Your task to perform on an android device: turn off sleep mode Image 0: 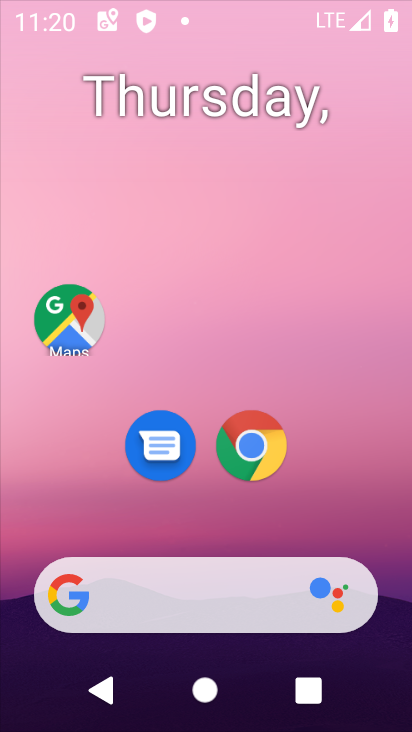
Step 0: drag from (150, 427) to (298, 94)
Your task to perform on an android device: turn off sleep mode Image 1: 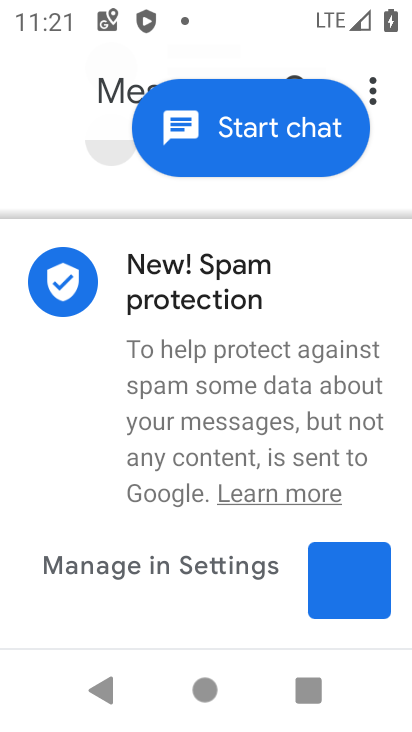
Step 1: press home button
Your task to perform on an android device: turn off sleep mode Image 2: 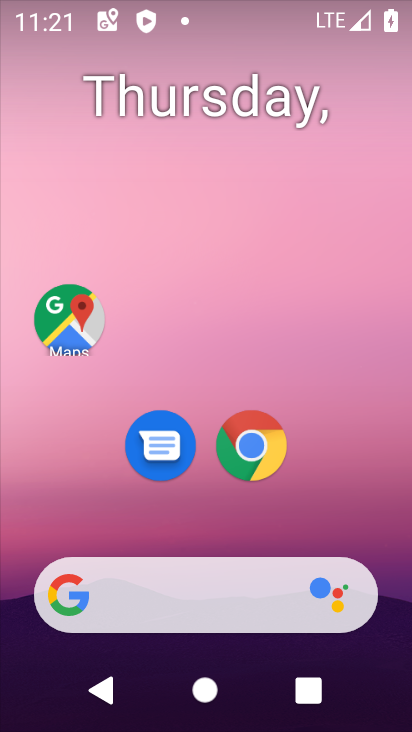
Step 2: drag from (164, 559) to (293, 133)
Your task to perform on an android device: turn off sleep mode Image 3: 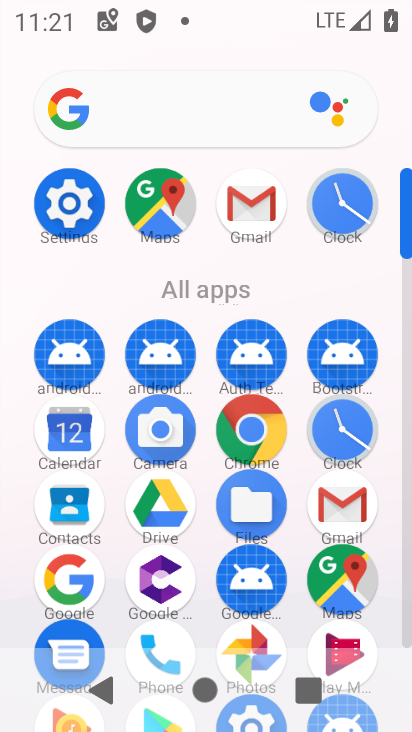
Step 3: drag from (205, 601) to (297, 347)
Your task to perform on an android device: turn off sleep mode Image 4: 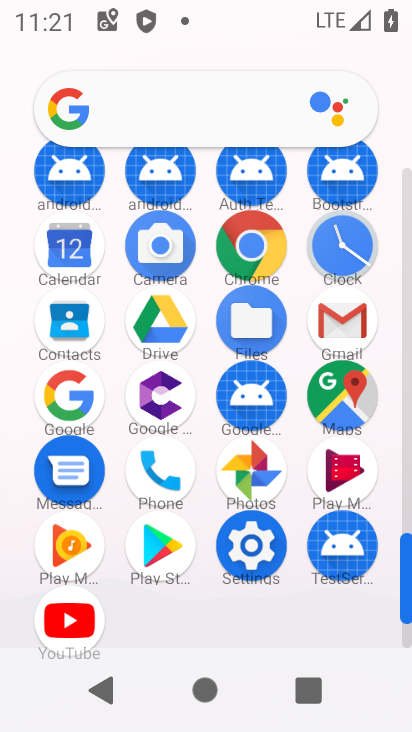
Step 4: click (267, 540)
Your task to perform on an android device: turn off sleep mode Image 5: 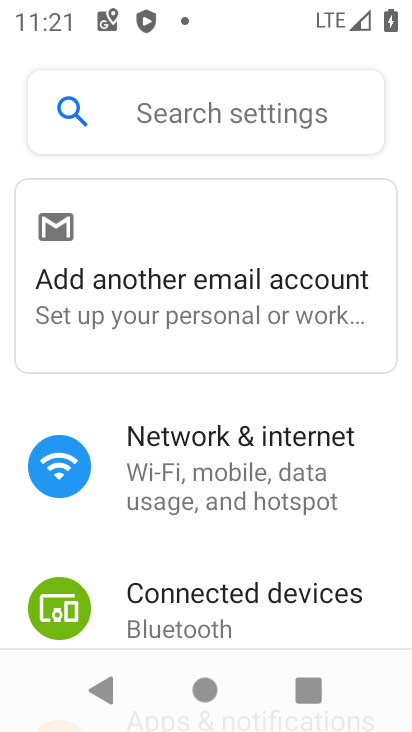
Step 5: drag from (176, 602) to (410, 147)
Your task to perform on an android device: turn off sleep mode Image 6: 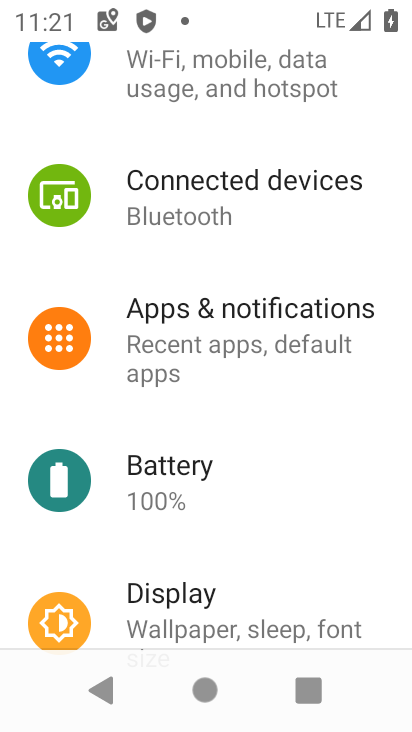
Step 6: click (241, 604)
Your task to perform on an android device: turn off sleep mode Image 7: 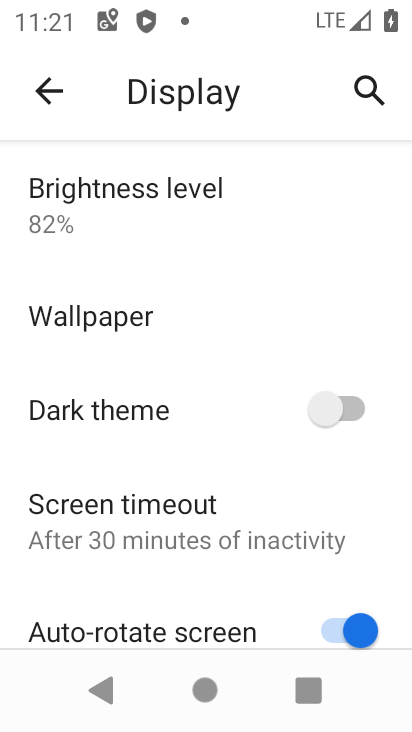
Step 7: task complete